Your task to perform on an android device: Open wifi settings Image 0: 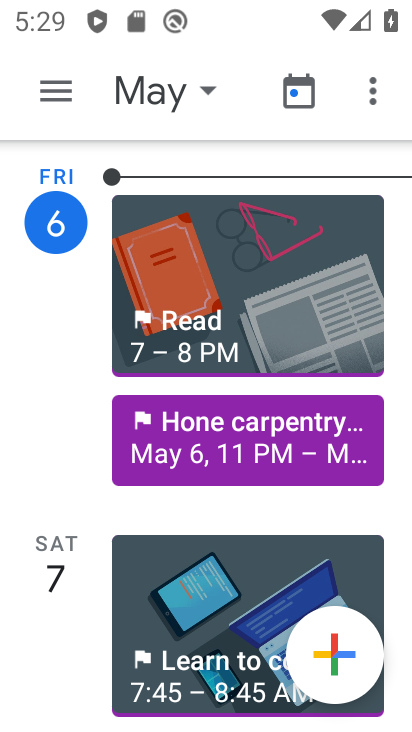
Step 0: drag from (129, 22) to (240, 547)
Your task to perform on an android device: Open wifi settings Image 1: 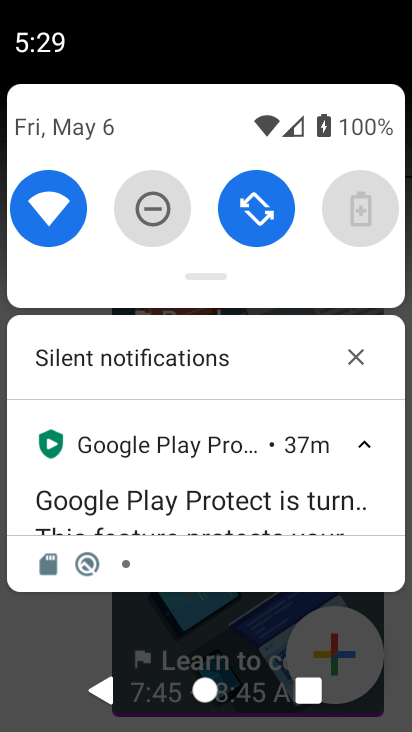
Step 1: click (60, 227)
Your task to perform on an android device: Open wifi settings Image 2: 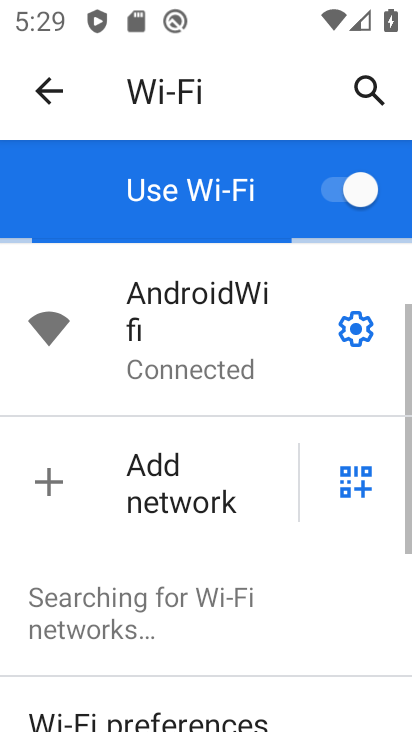
Step 2: click (60, 227)
Your task to perform on an android device: Open wifi settings Image 3: 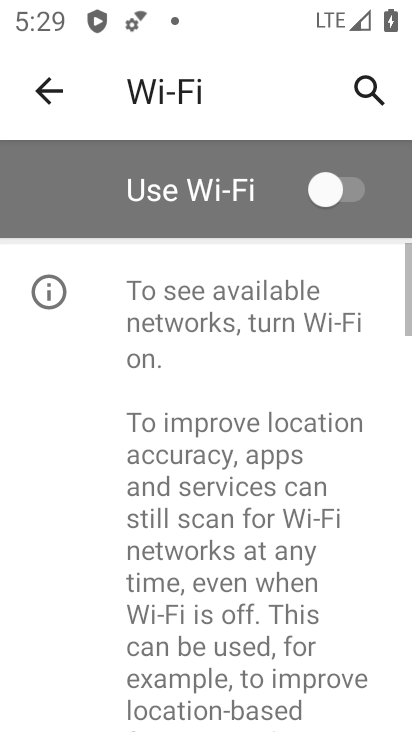
Step 3: task complete